Your task to perform on an android device: Go to calendar. Show me events next week Image 0: 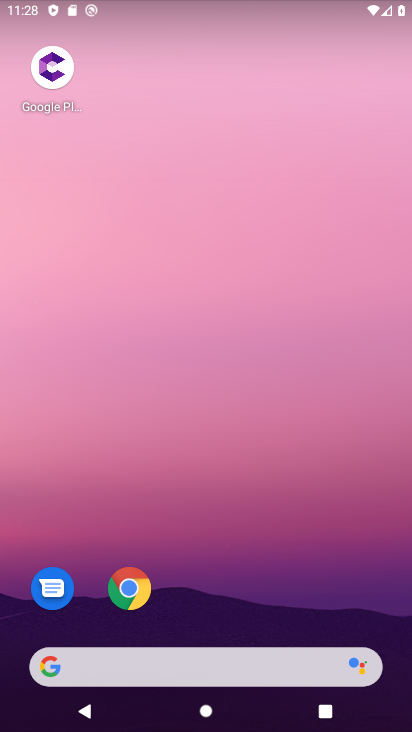
Step 0: drag from (282, 594) to (298, 194)
Your task to perform on an android device: Go to calendar. Show me events next week Image 1: 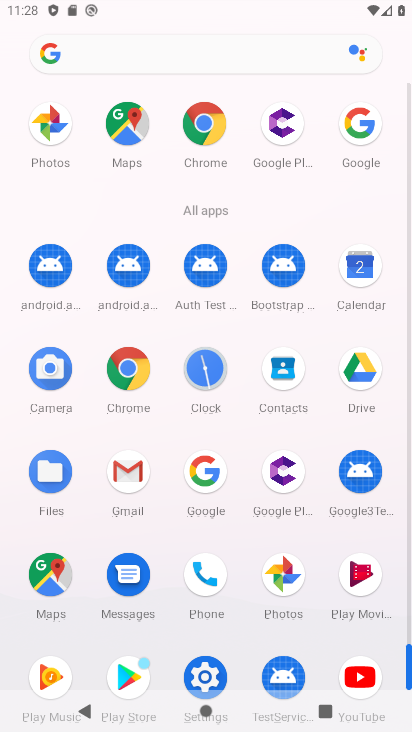
Step 1: click (373, 282)
Your task to perform on an android device: Go to calendar. Show me events next week Image 2: 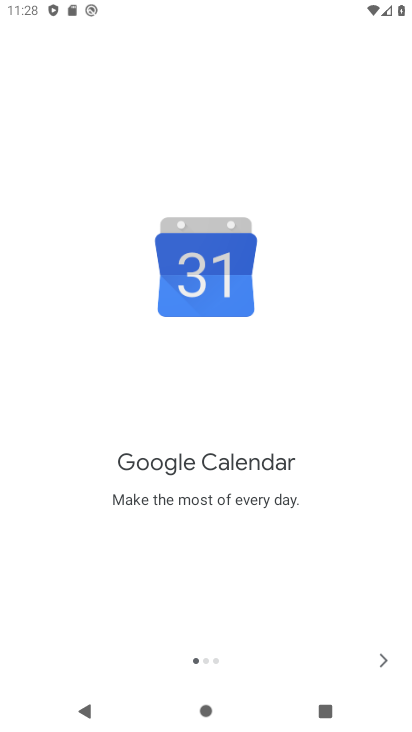
Step 2: click (385, 662)
Your task to perform on an android device: Go to calendar. Show me events next week Image 3: 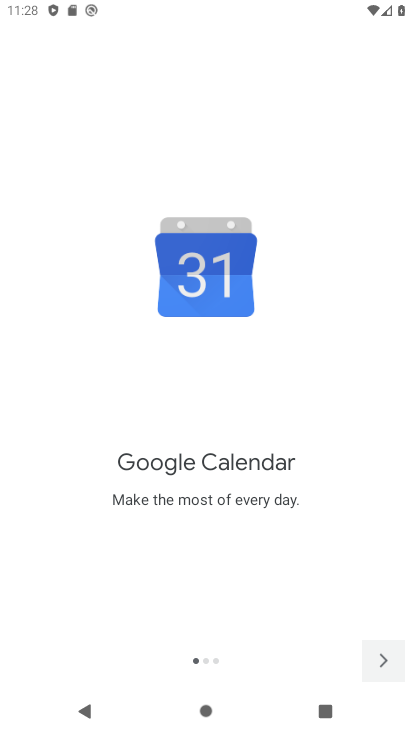
Step 3: click (385, 662)
Your task to perform on an android device: Go to calendar. Show me events next week Image 4: 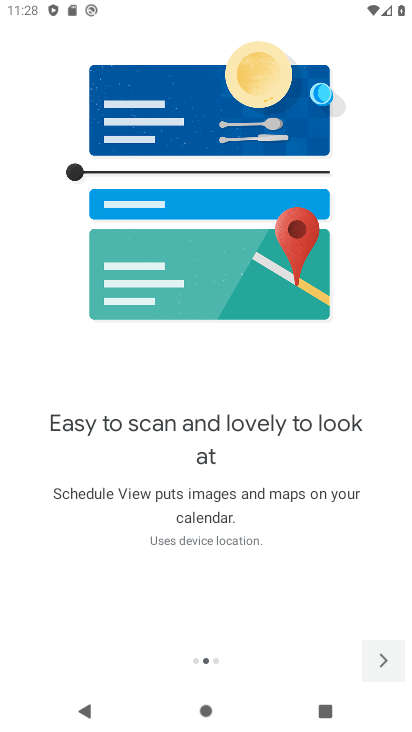
Step 4: click (385, 662)
Your task to perform on an android device: Go to calendar. Show me events next week Image 5: 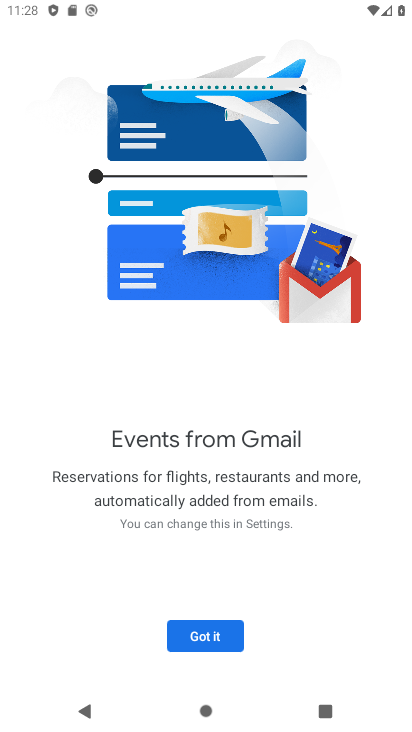
Step 5: click (385, 661)
Your task to perform on an android device: Go to calendar. Show me events next week Image 6: 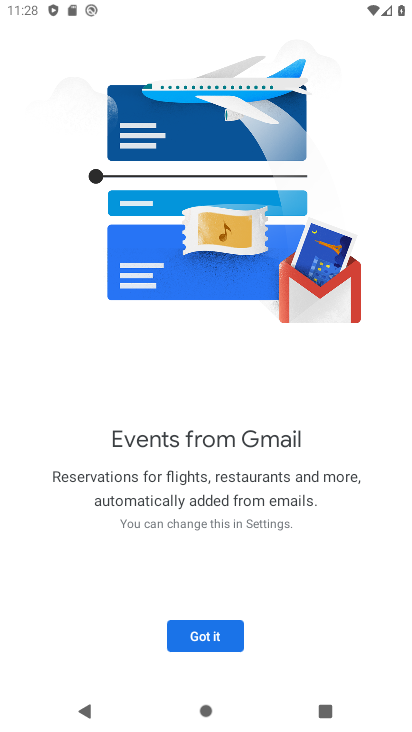
Step 6: click (199, 640)
Your task to perform on an android device: Go to calendar. Show me events next week Image 7: 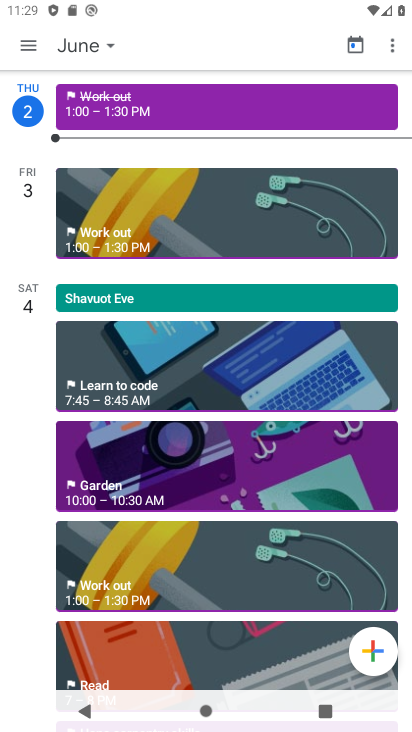
Step 7: click (82, 44)
Your task to perform on an android device: Go to calendar. Show me events next week Image 8: 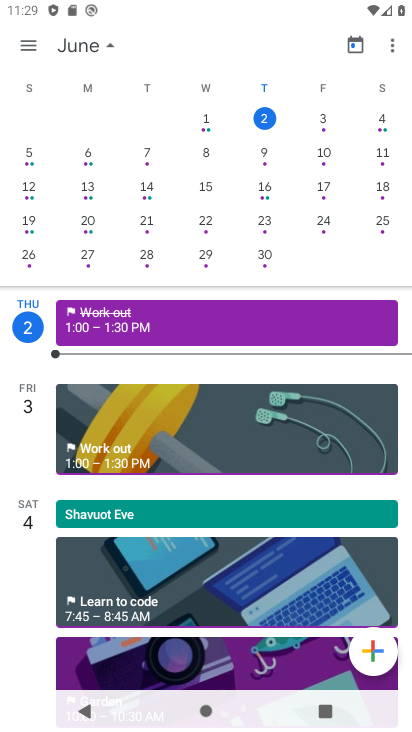
Step 8: click (28, 161)
Your task to perform on an android device: Go to calendar. Show me events next week Image 9: 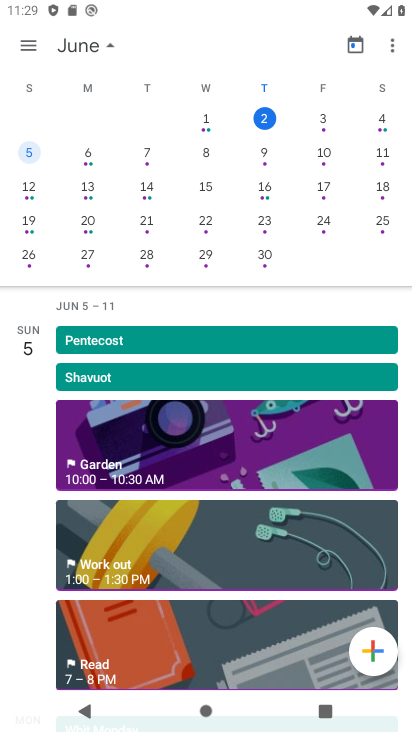
Step 9: click (105, 45)
Your task to perform on an android device: Go to calendar. Show me events next week Image 10: 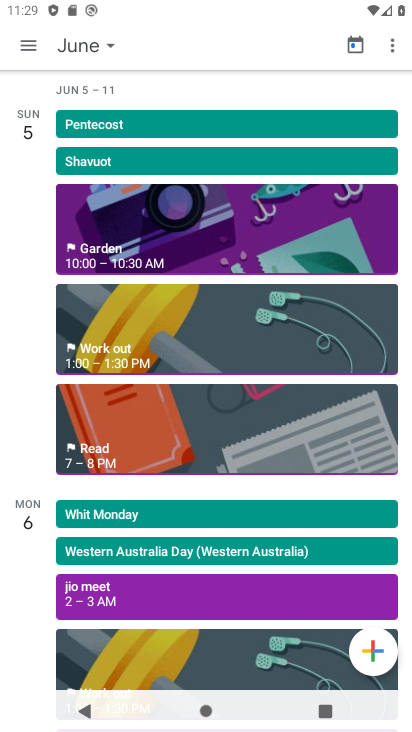
Step 10: click (24, 51)
Your task to perform on an android device: Go to calendar. Show me events next week Image 11: 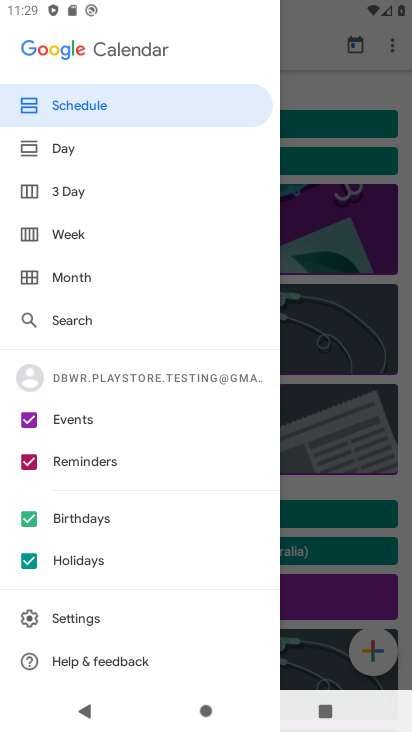
Step 11: click (99, 239)
Your task to perform on an android device: Go to calendar. Show me events next week Image 12: 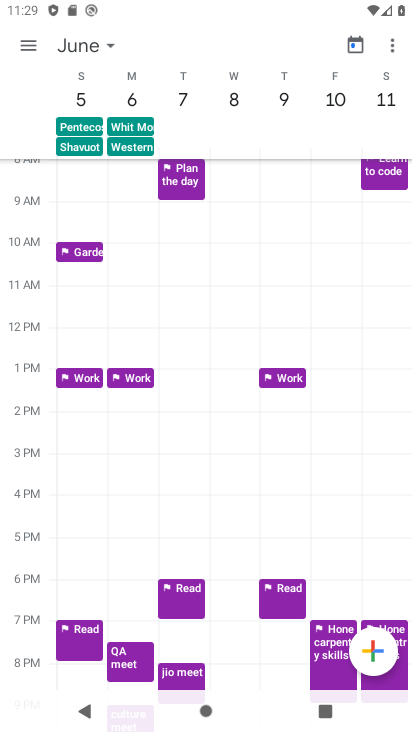
Step 12: task complete